Your task to perform on an android device: Open Google Chrome and click the shortcut for Amazon.com Image 0: 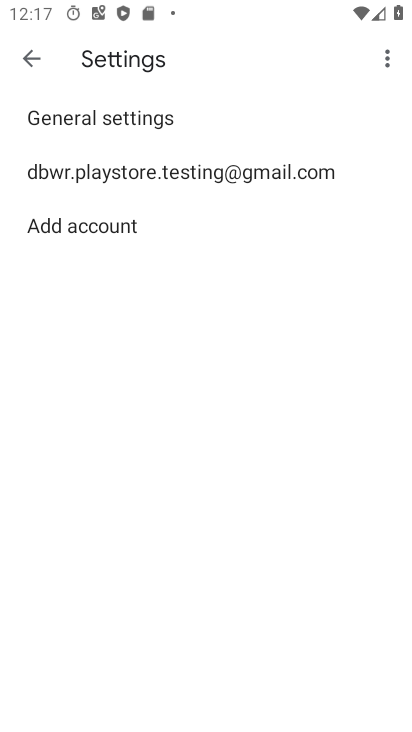
Step 0: press home button
Your task to perform on an android device: Open Google Chrome and click the shortcut for Amazon.com Image 1: 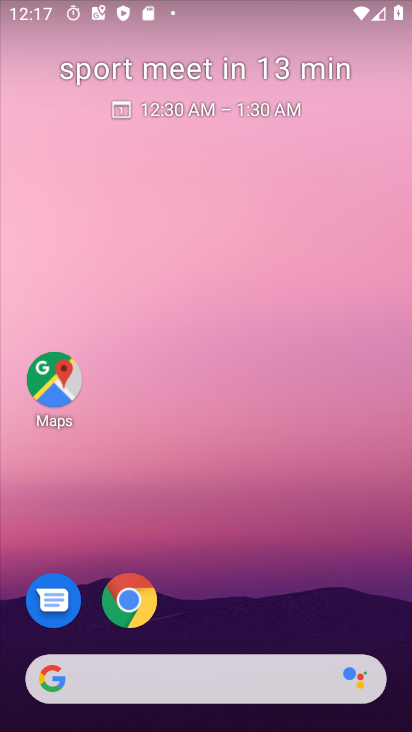
Step 1: click (124, 608)
Your task to perform on an android device: Open Google Chrome and click the shortcut for Amazon.com Image 2: 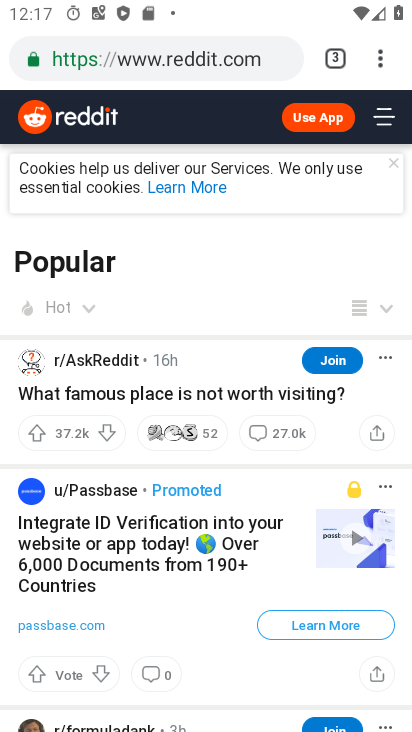
Step 2: drag from (221, 36) to (231, 144)
Your task to perform on an android device: Open Google Chrome and click the shortcut for Amazon.com Image 3: 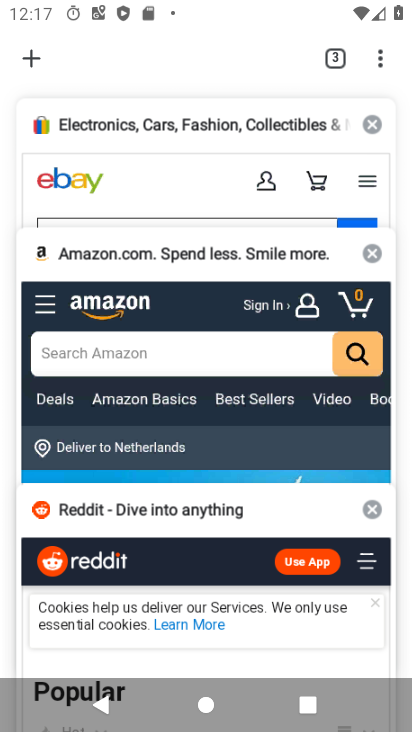
Step 3: click (33, 60)
Your task to perform on an android device: Open Google Chrome and click the shortcut for Amazon.com Image 4: 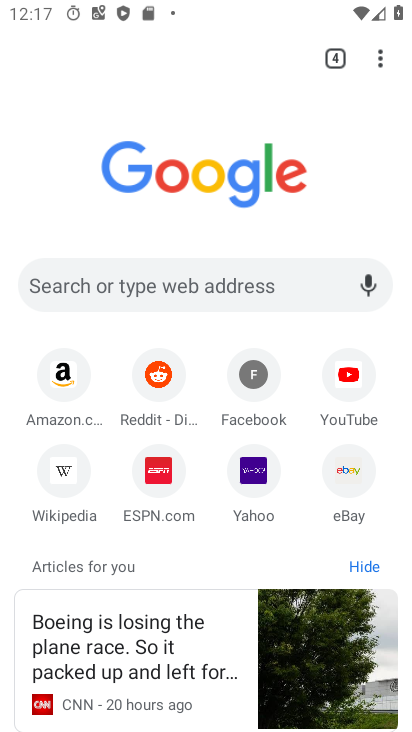
Step 4: click (52, 374)
Your task to perform on an android device: Open Google Chrome and click the shortcut for Amazon.com Image 5: 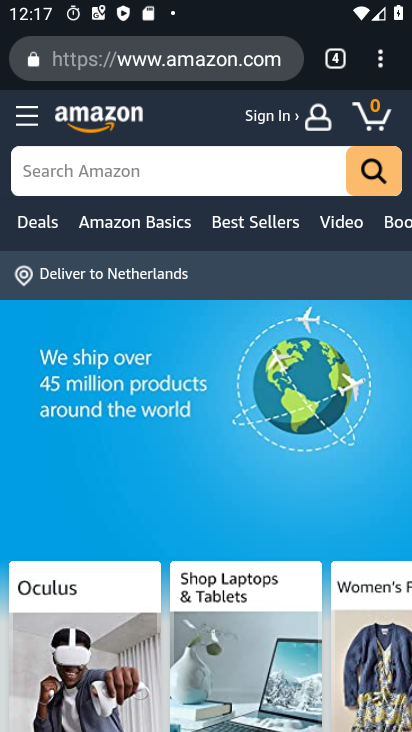
Step 5: task complete